Your task to perform on an android device: Go to Reddit.com Image 0: 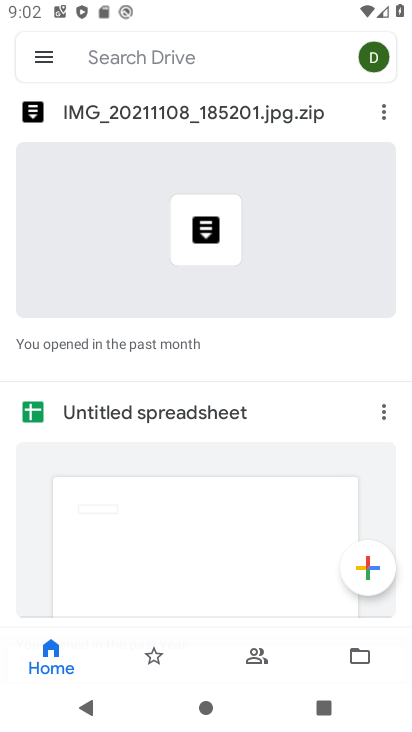
Step 0: press home button
Your task to perform on an android device: Go to Reddit.com Image 1: 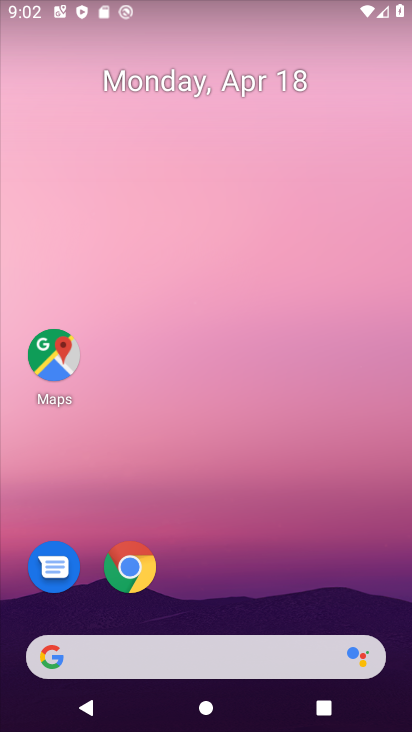
Step 1: click (180, 662)
Your task to perform on an android device: Go to Reddit.com Image 2: 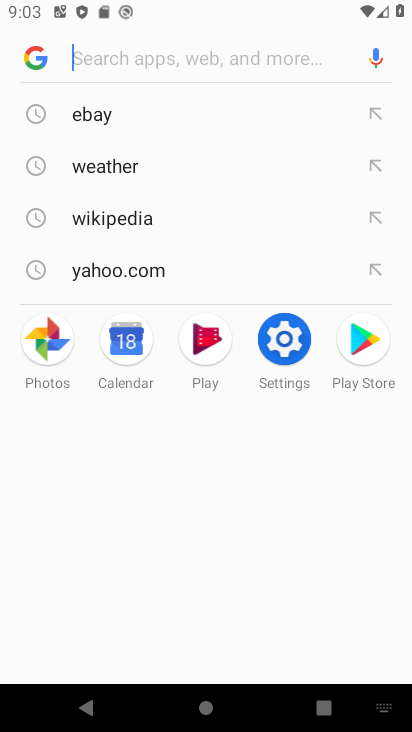
Step 2: type "Reddit.com"
Your task to perform on an android device: Go to Reddit.com Image 3: 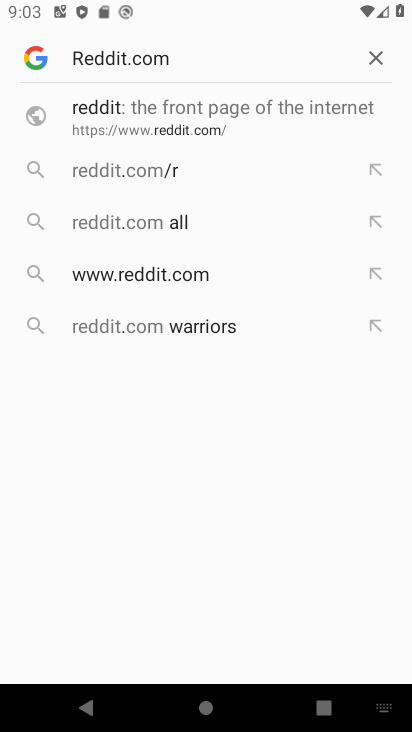
Step 3: click (236, 110)
Your task to perform on an android device: Go to Reddit.com Image 4: 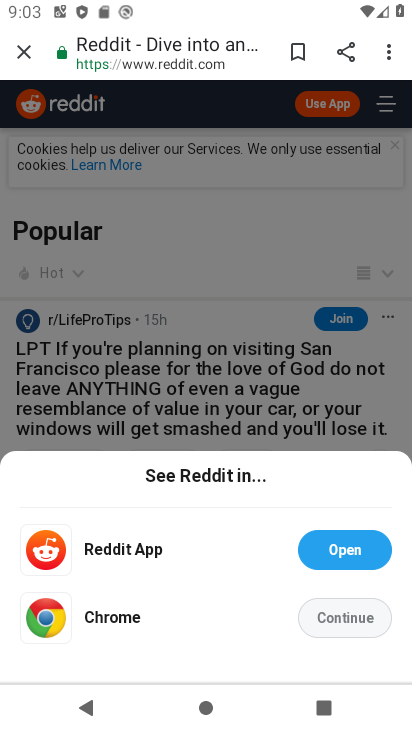
Step 4: click (354, 619)
Your task to perform on an android device: Go to Reddit.com Image 5: 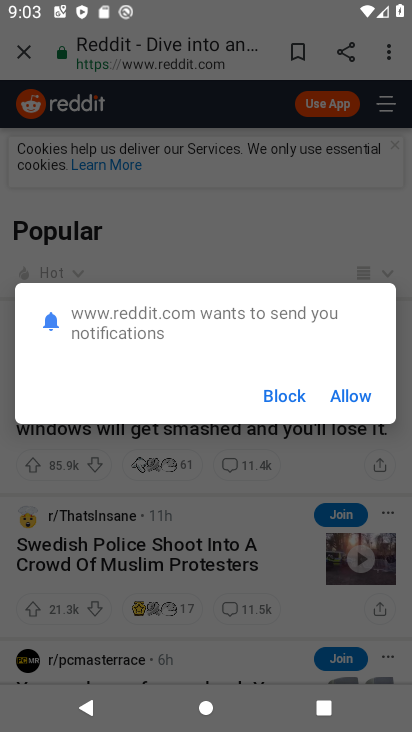
Step 5: click (335, 398)
Your task to perform on an android device: Go to Reddit.com Image 6: 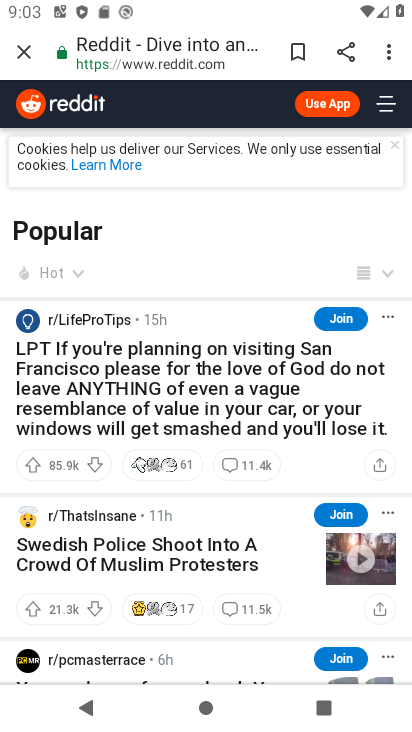
Step 6: task complete